Your task to perform on an android device: check android version Image 0: 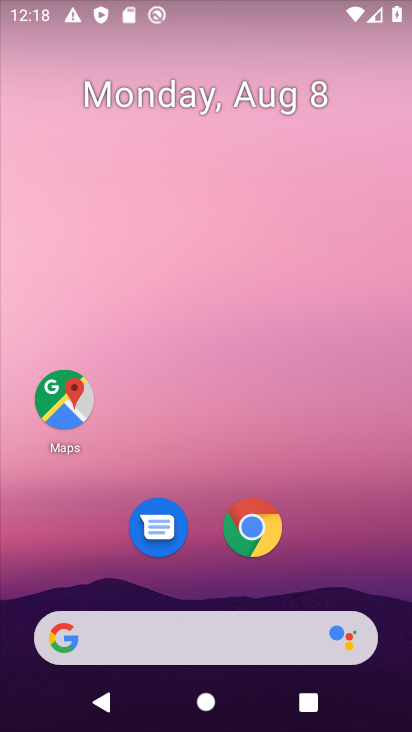
Step 0: drag from (217, 439) to (218, 131)
Your task to perform on an android device: check android version Image 1: 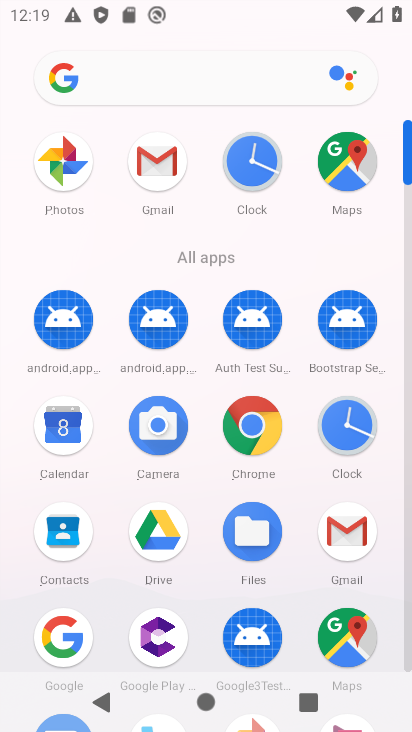
Step 1: drag from (305, 486) to (335, 183)
Your task to perform on an android device: check android version Image 2: 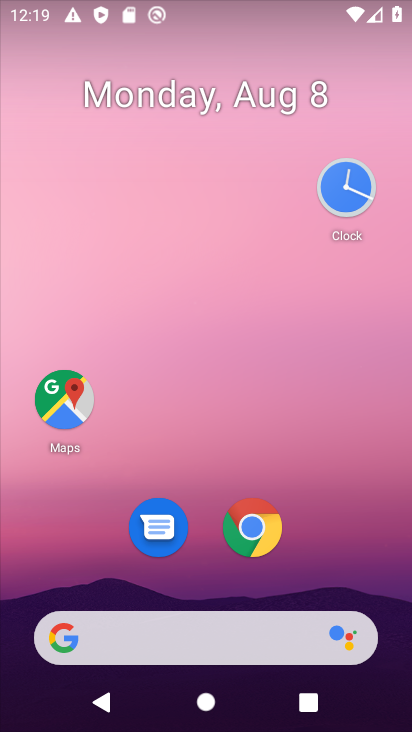
Step 2: drag from (225, 444) to (200, 57)
Your task to perform on an android device: check android version Image 3: 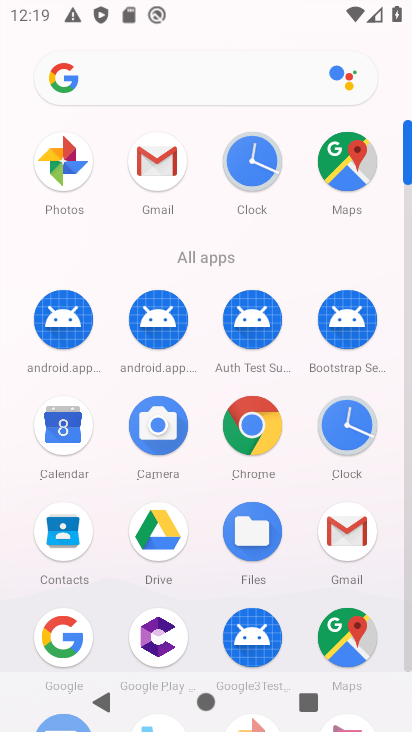
Step 3: drag from (199, 581) to (204, 317)
Your task to perform on an android device: check android version Image 4: 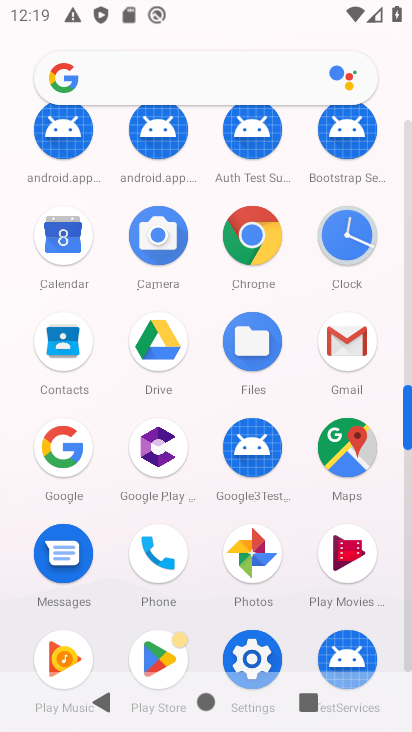
Step 4: drag from (200, 629) to (239, 363)
Your task to perform on an android device: check android version Image 5: 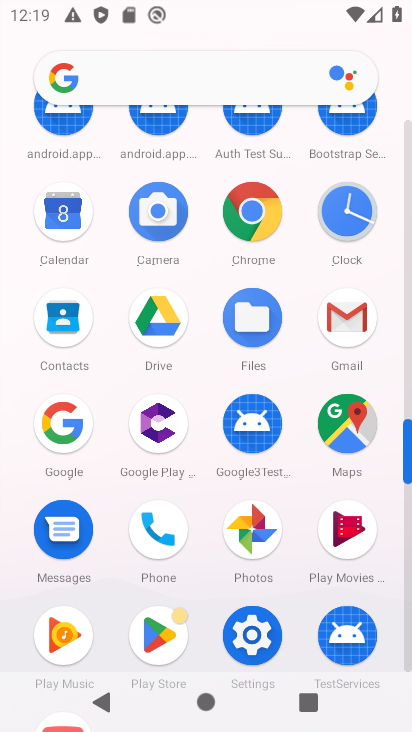
Step 5: click (260, 638)
Your task to perform on an android device: check android version Image 6: 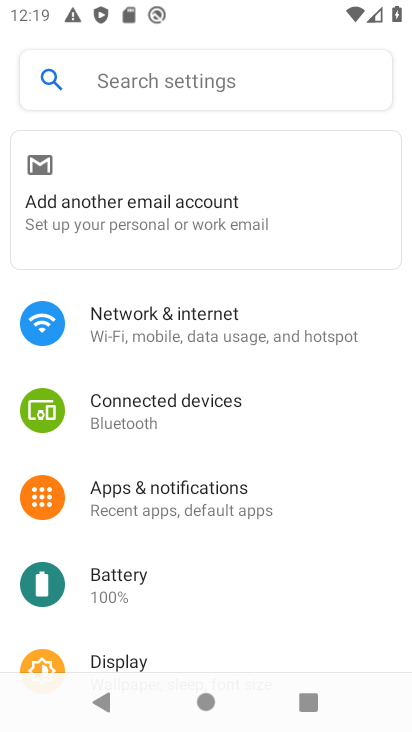
Step 6: task complete